Your task to perform on an android device: change notifications settings Image 0: 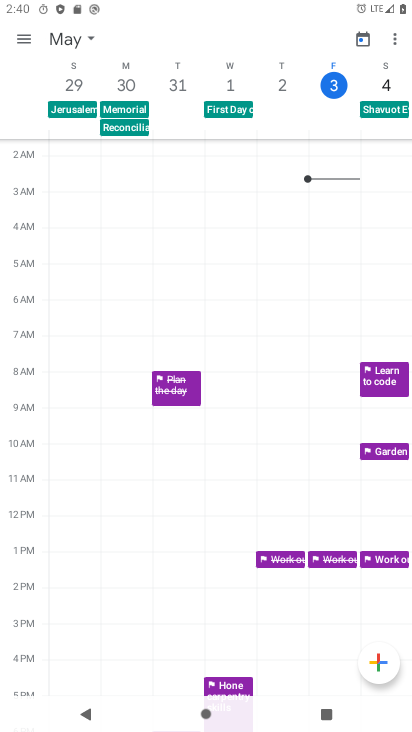
Step 0: press home button
Your task to perform on an android device: change notifications settings Image 1: 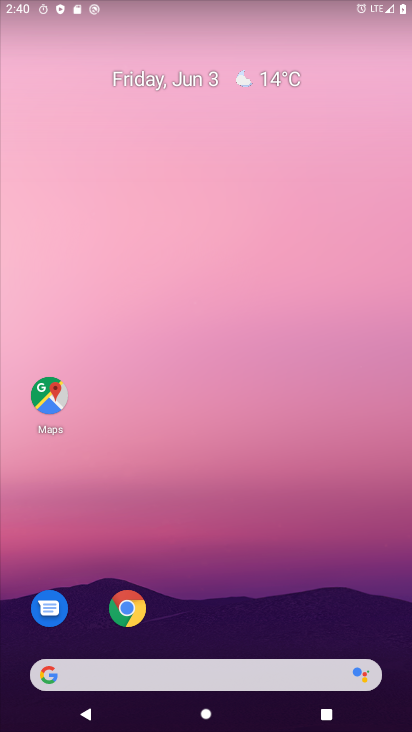
Step 1: drag from (181, 679) to (224, 65)
Your task to perform on an android device: change notifications settings Image 2: 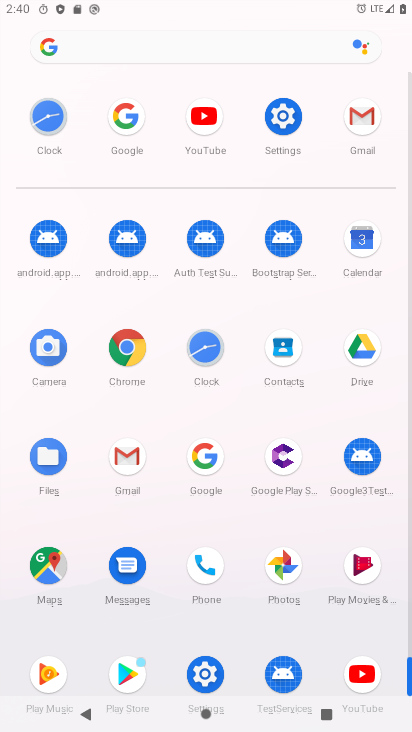
Step 2: click (278, 120)
Your task to perform on an android device: change notifications settings Image 3: 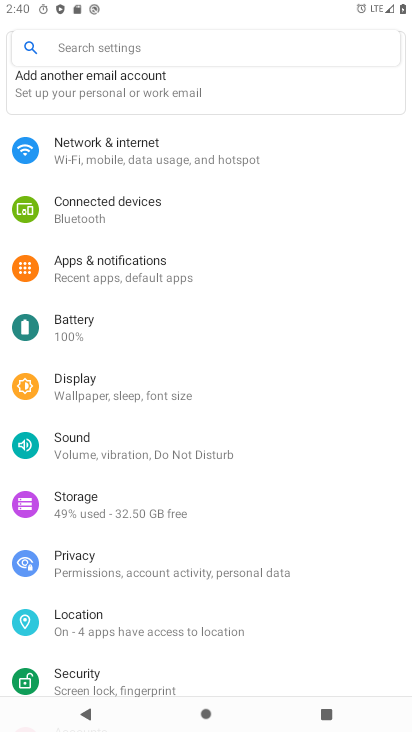
Step 3: click (106, 448)
Your task to perform on an android device: change notifications settings Image 4: 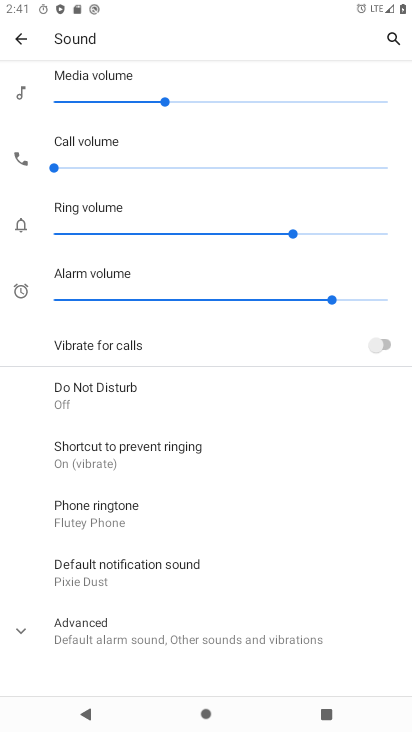
Step 4: click (384, 339)
Your task to perform on an android device: change notifications settings Image 5: 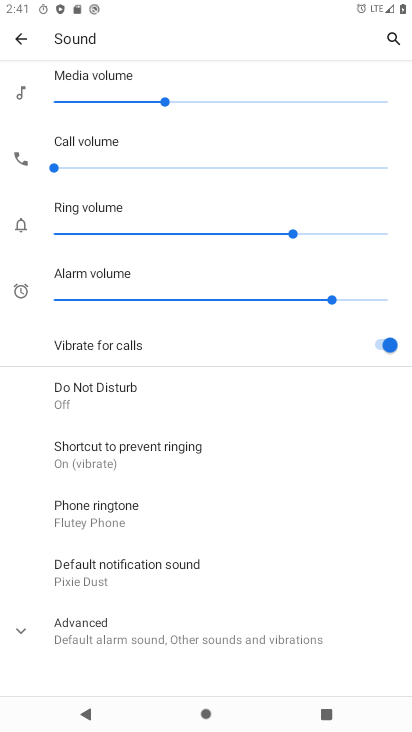
Step 5: task complete